Your task to perform on an android device: open a bookmark in the chrome app Image 0: 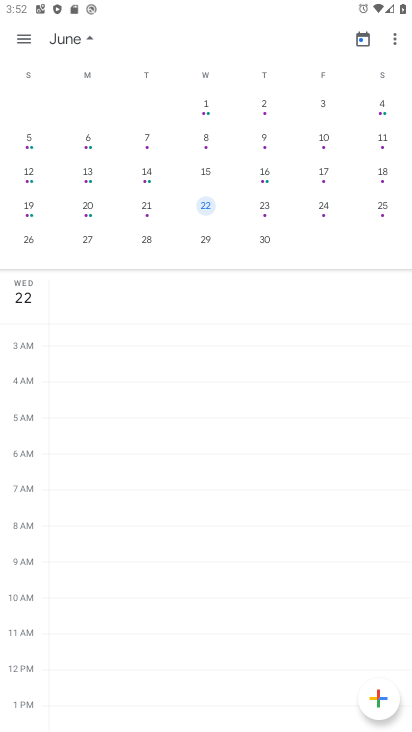
Step 0: press home button
Your task to perform on an android device: open a bookmark in the chrome app Image 1: 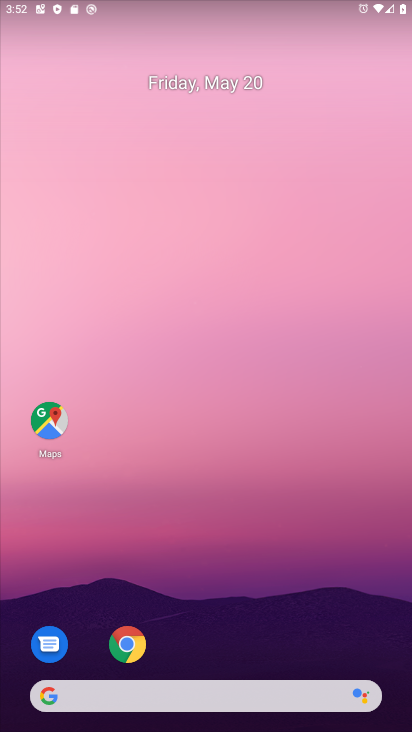
Step 1: click (145, 652)
Your task to perform on an android device: open a bookmark in the chrome app Image 2: 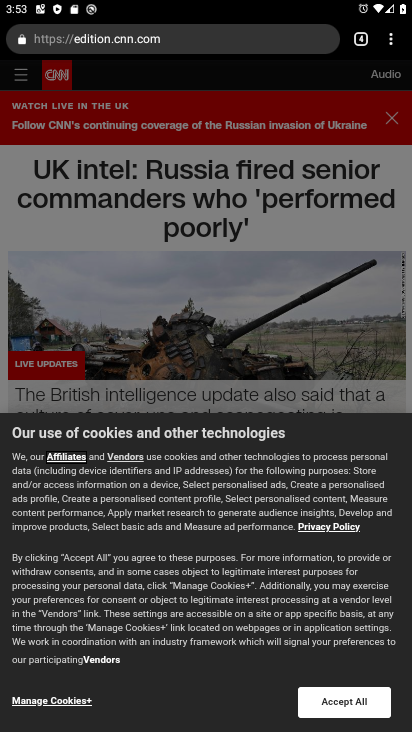
Step 2: task complete